Your task to perform on an android device: What's the weather today? Image 0: 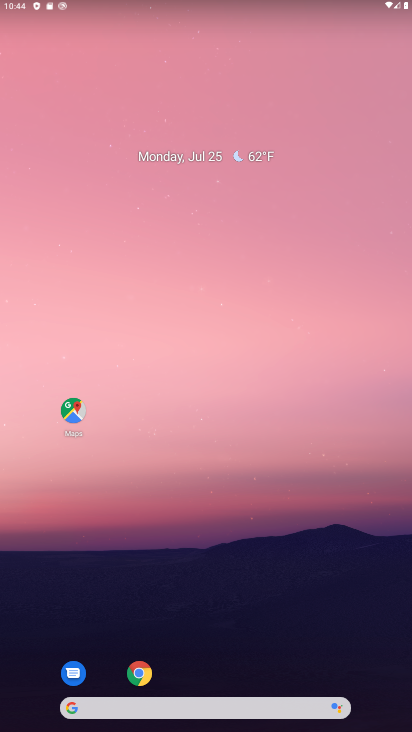
Step 0: click (206, 707)
Your task to perform on an android device: What's the weather today? Image 1: 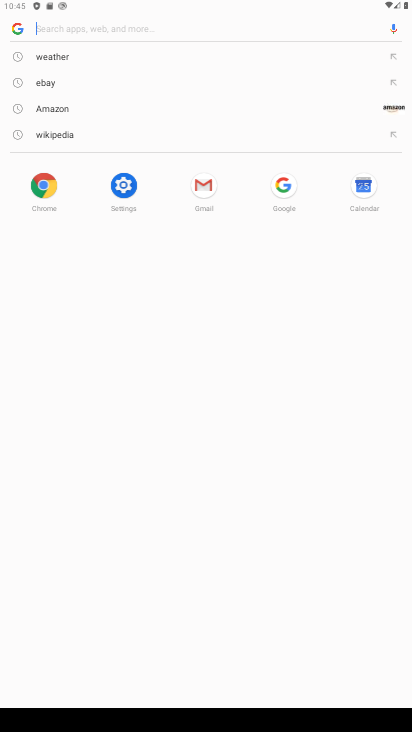
Step 1: type "what's the weather today"
Your task to perform on an android device: What's the weather today? Image 2: 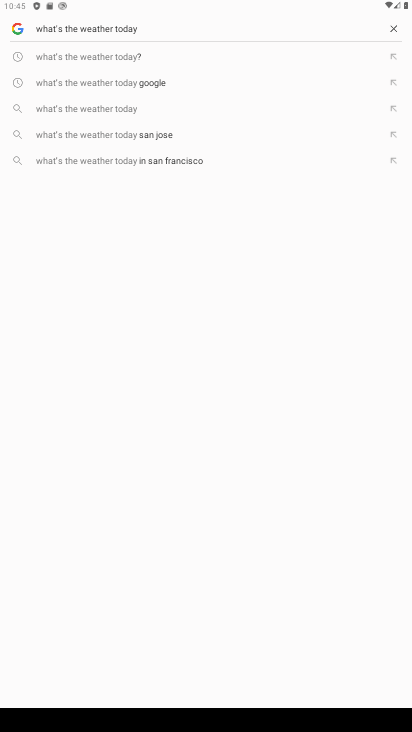
Step 2: click (126, 52)
Your task to perform on an android device: What's the weather today? Image 3: 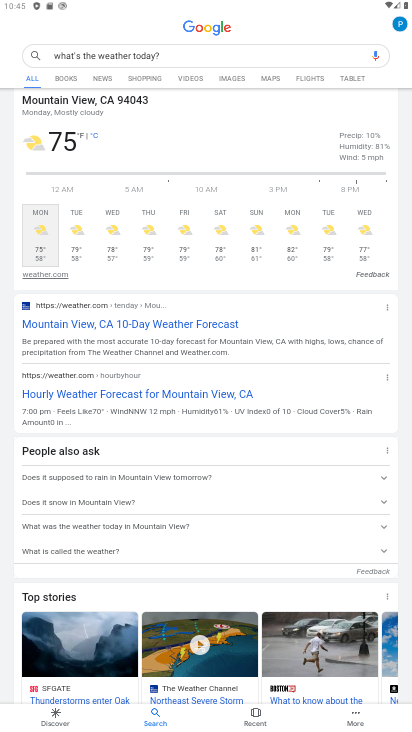
Step 3: task complete